Your task to perform on an android device: move a message to another label in the gmail app Image 0: 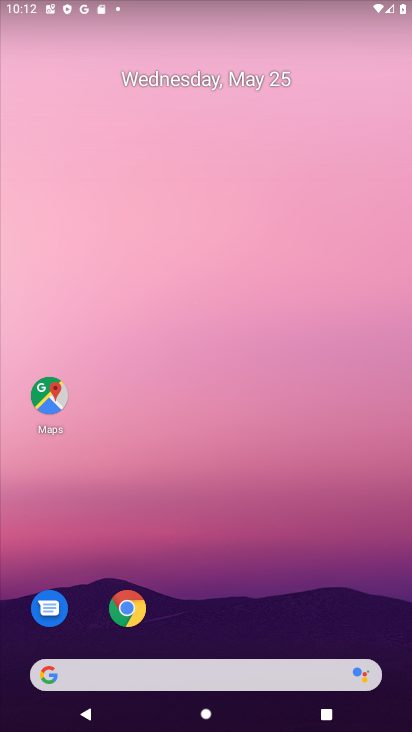
Step 0: drag from (290, 640) to (277, 17)
Your task to perform on an android device: move a message to another label in the gmail app Image 1: 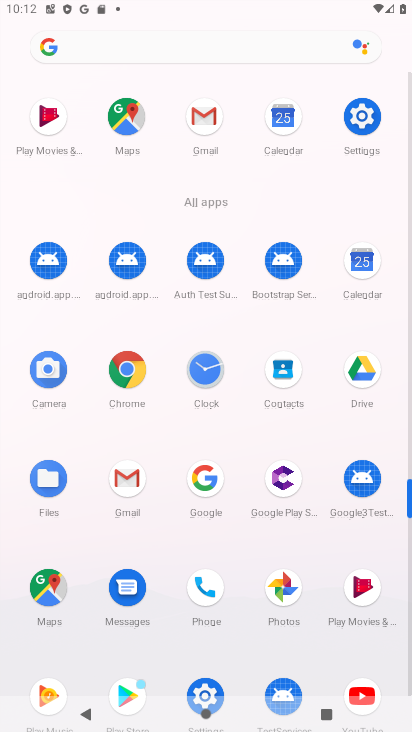
Step 1: click (209, 127)
Your task to perform on an android device: move a message to another label in the gmail app Image 2: 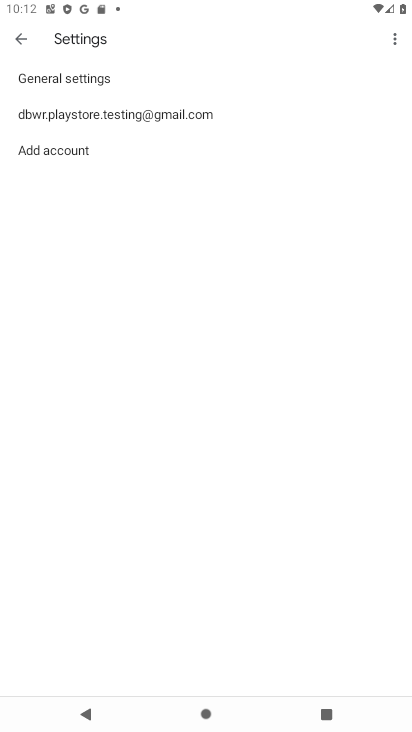
Step 2: click (16, 43)
Your task to perform on an android device: move a message to another label in the gmail app Image 3: 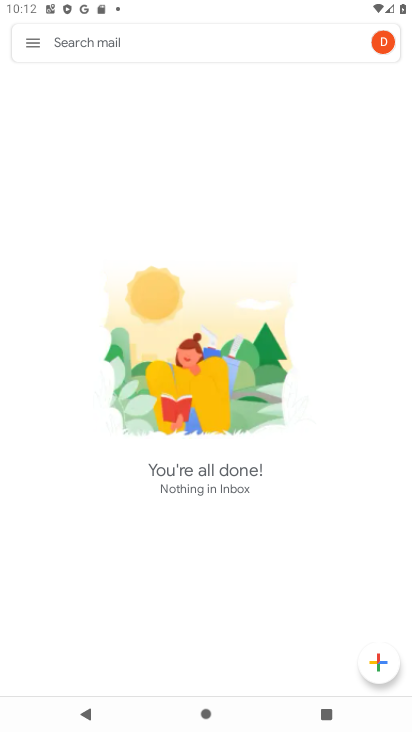
Step 3: click (29, 39)
Your task to perform on an android device: move a message to another label in the gmail app Image 4: 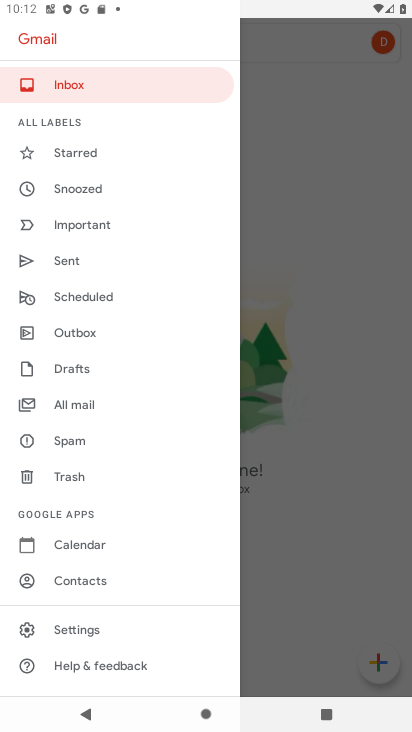
Step 4: click (81, 403)
Your task to perform on an android device: move a message to another label in the gmail app Image 5: 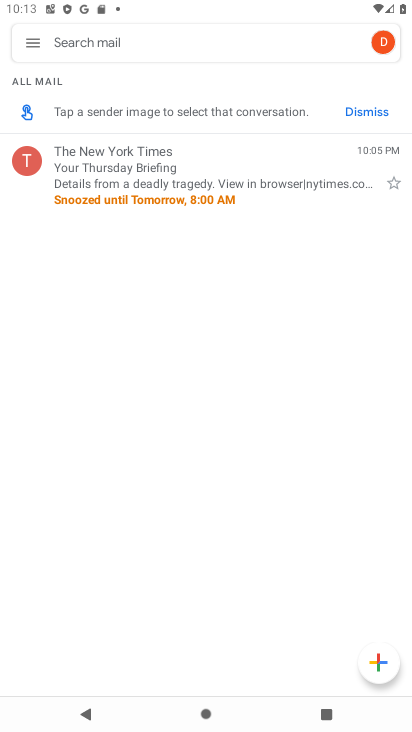
Step 5: click (171, 179)
Your task to perform on an android device: move a message to another label in the gmail app Image 6: 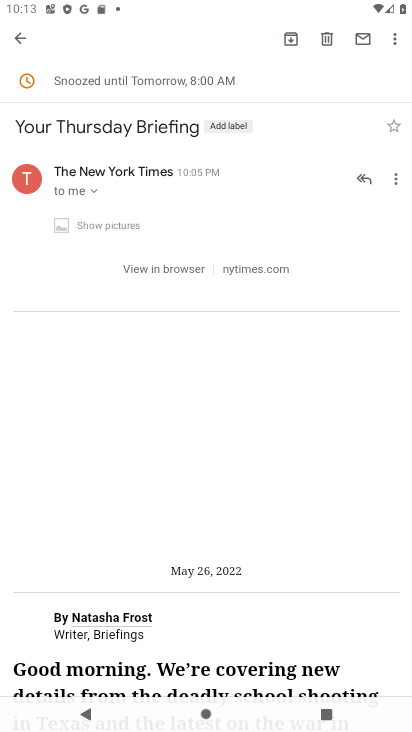
Step 6: click (398, 177)
Your task to perform on an android device: move a message to another label in the gmail app Image 7: 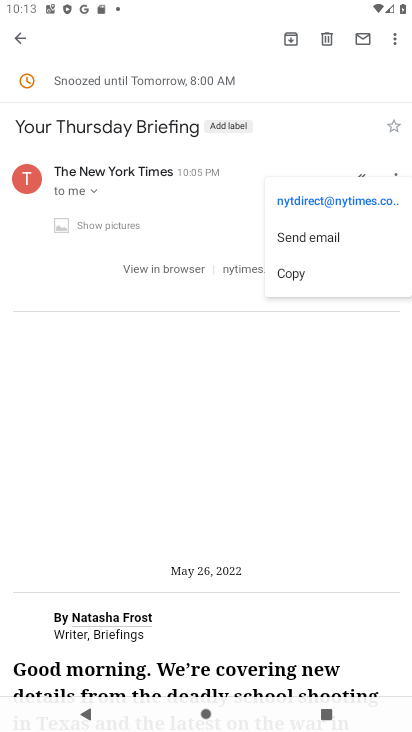
Step 7: click (395, 38)
Your task to perform on an android device: move a message to another label in the gmail app Image 8: 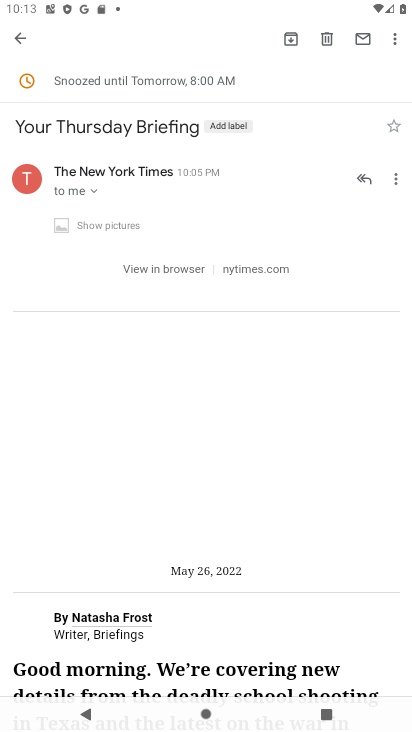
Step 8: click (395, 39)
Your task to perform on an android device: move a message to another label in the gmail app Image 9: 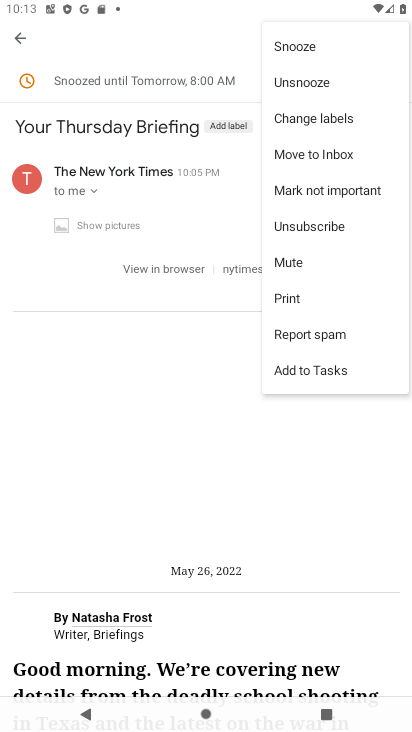
Step 9: click (307, 121)
Your task to perform on an android device: move a message to another label in the gmail app Image 10: 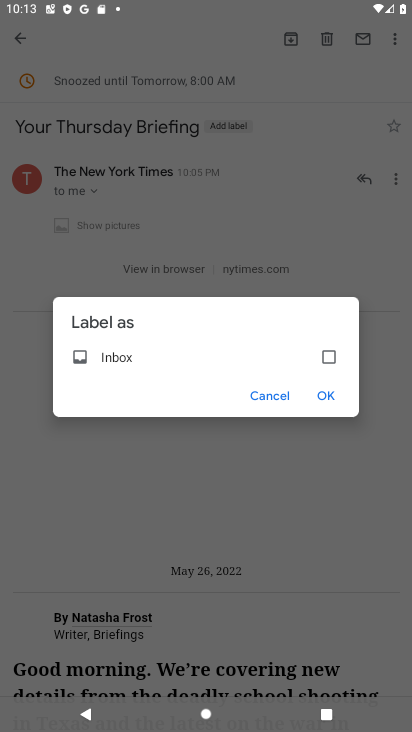
Step 10: click (318, 356)
Your task to perform on an android device: move a message to another label in the gmail app Image 11: 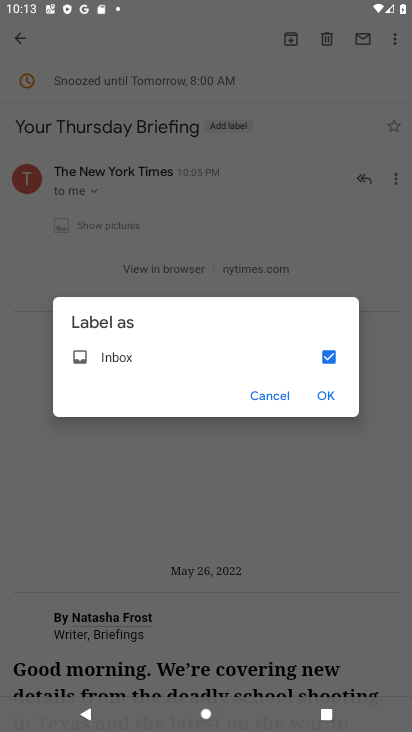
Step 11: click (321, 396)
Your task to perform on an android device: move a message to another label in the gmail app Image 12: 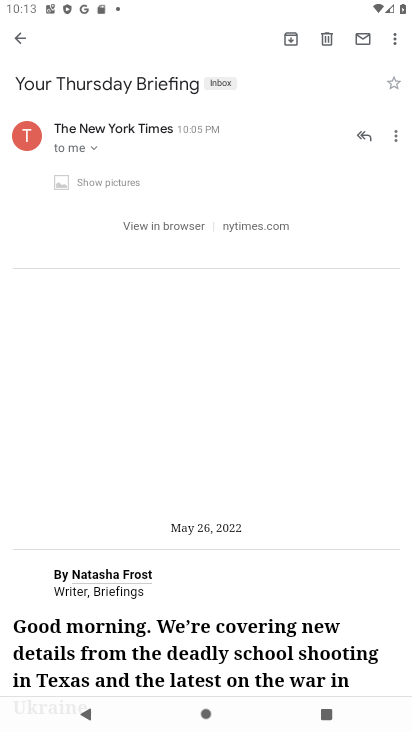
Step 12: task complete